Your task to perform on an android device: Open location settings Image 0: 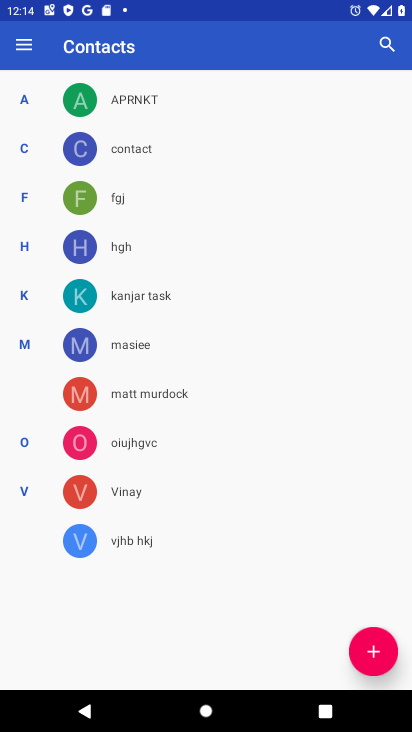
Step 0: press home button
Your task to perform on an android device: Open location settings Image 1: 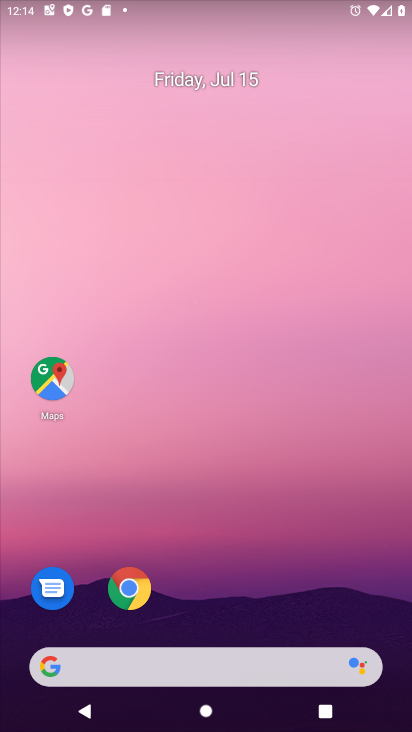
Step 1: drag from (186, 658) to (269, 47)
Your task to perform on an android device: Open location settings Image 2: 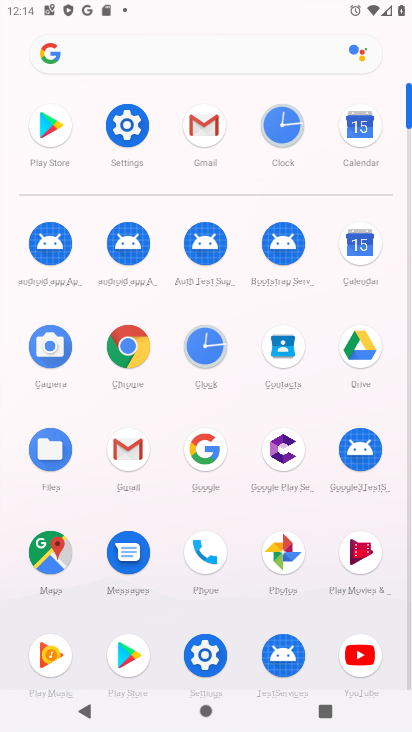
Step 2: click (137, 129)
Your task to perform on an android device: Open location settings Image 3: 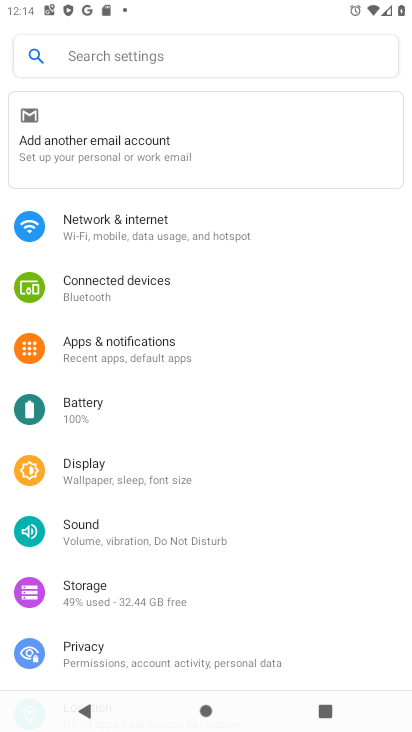
Step 3: drag from (275, 545) to (313, 169)
Your task to perform on an android device: Open location settings Image 4: 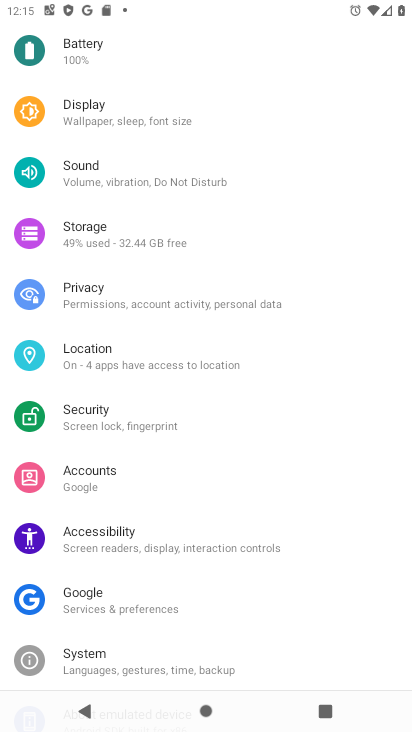
Step 4: click (94, 356)
Your task to perform on an android device: Open location settings Image 5: 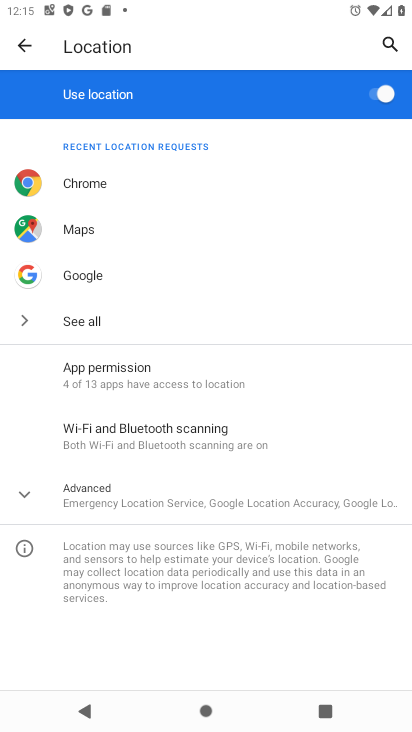
Step 5: task complete